Your task to perform on an android device: remove spam from my inbox in the gmail app Image 0: 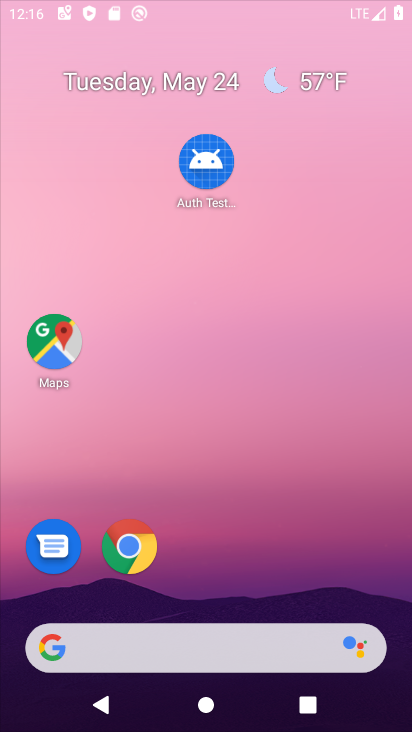
Step 0: click (373, 186)
Your task to perform on an android device: remove spam from my inbox in the gmail app Image 1: 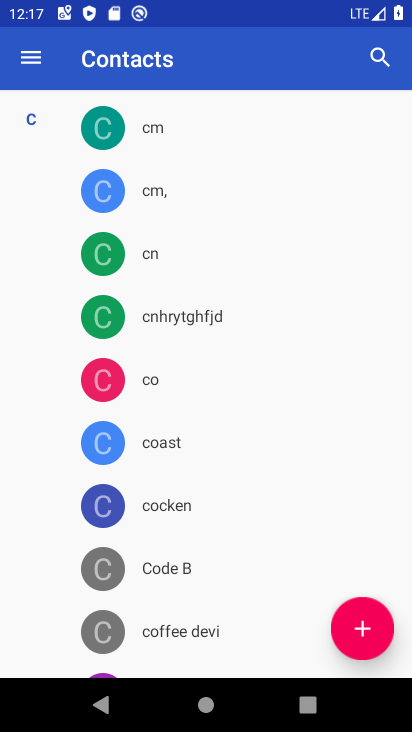
Step 1: press home button
Your task to perform on an android device: remove spam from my inbox in the gmail app Image 2: 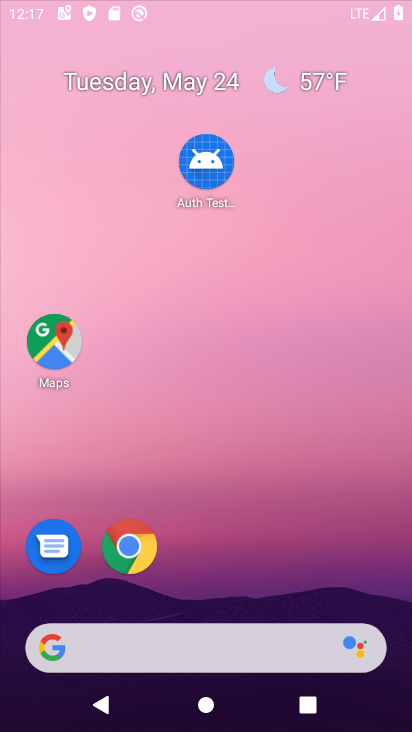
Step 2: drag from (237, 675) to (373, 203)
Your task to perform on an android device: remove spam from my inbox in the gmail app Image 3: 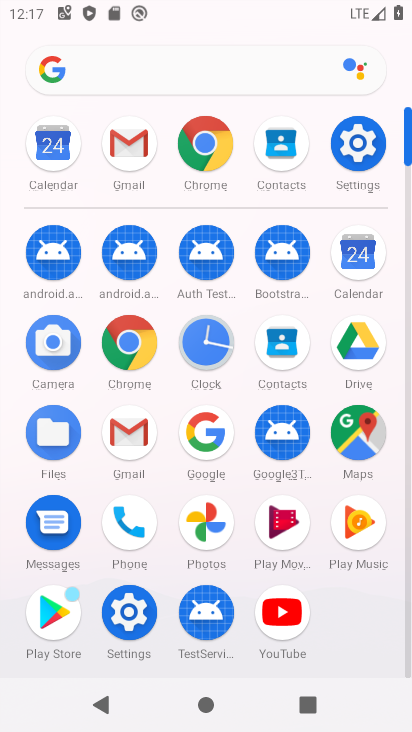
Step 3: click (117, 427)
Your task to perform on an android device: remove spam from my inbox in the gmail app Image 4: 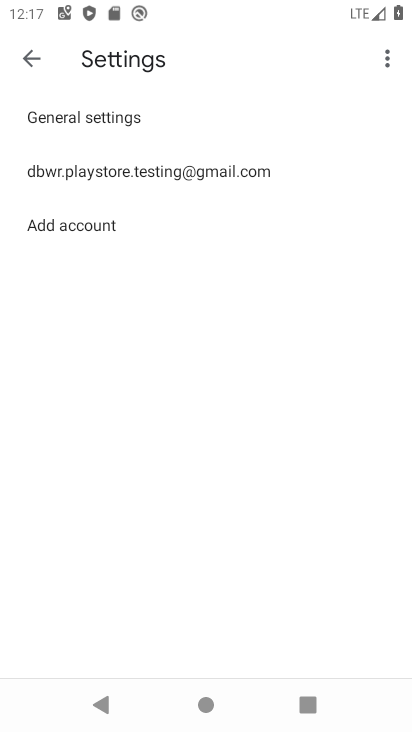
Step 4: click (91, 158)
Your task to perform on an android device: remove spam from my inbox in the gmail app Image 5: 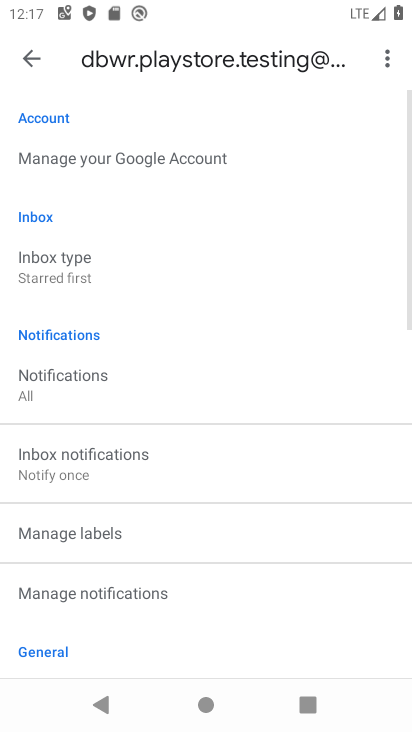
Step 5: drag from (188, 441) to (239, 247)
Your task to perform on an android device: remove spam from my inbox in the gmail app Image 6: 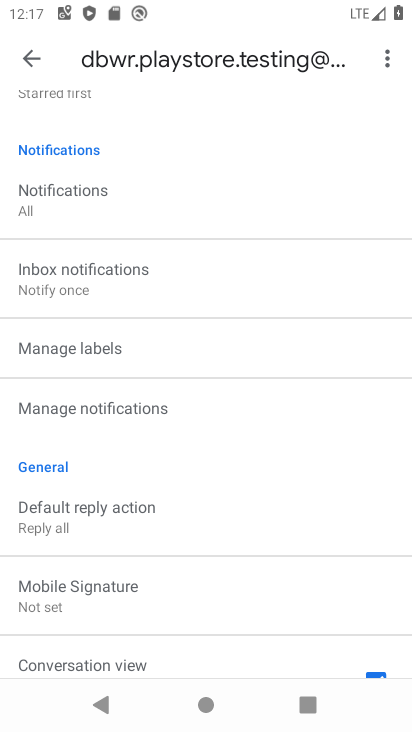
Step 6: drag from (171, 558) to (208, 275)
Your task to perform on an android device: remove spam from my inbox in the gmail app Image 7: 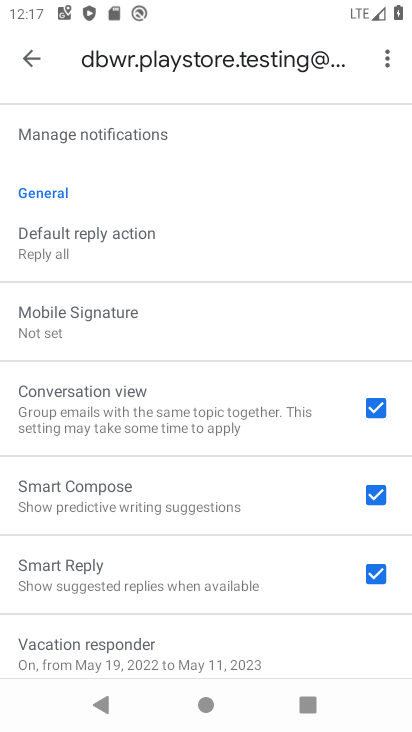
Step 7: drag from (196, 206) to (240, 649)
Your task to perform on an android device: remove spam from my inbox in the gmail app Image 8: 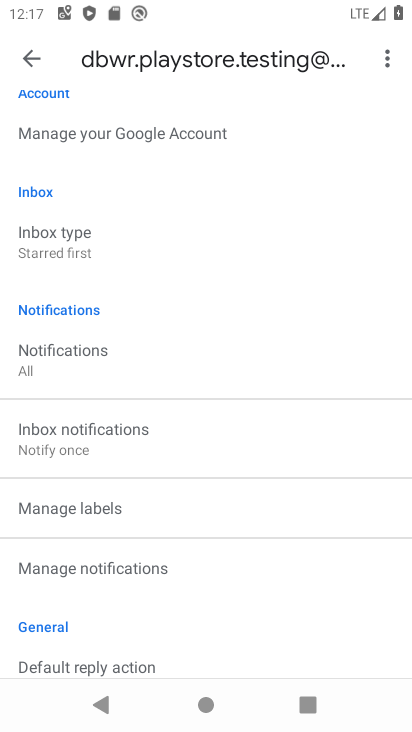
Step 8: drag from (213, 275) to (263, 600)
Your task to perform on an android device: remove spam from my inbox in the gmail app Image 9: 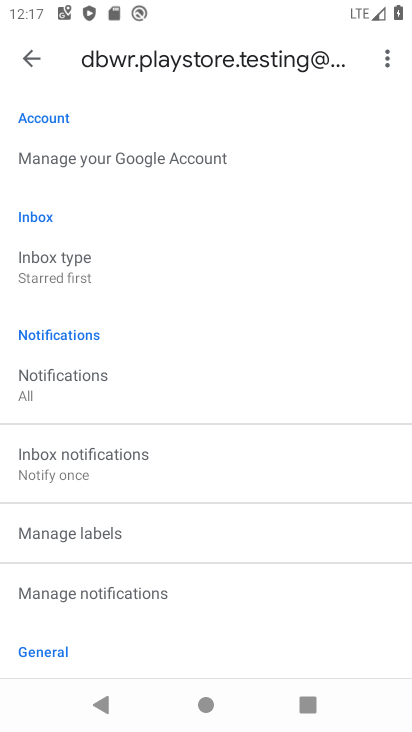
Step 9: drag from (218, 602) to (261, 235)
Your task to perform on an android device: remove spam from my inbox in the gmail app Image 10: 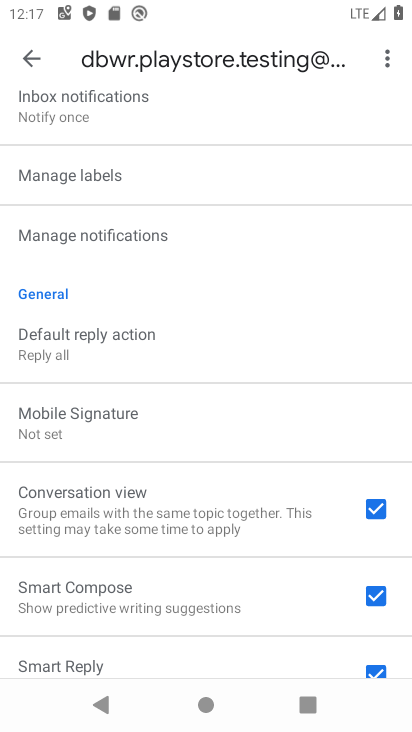
Step 10: drag from (233, 572) to (258, 350)
Your task to perform on an android device: remove spam from my inbox in the gmail app Image 11: 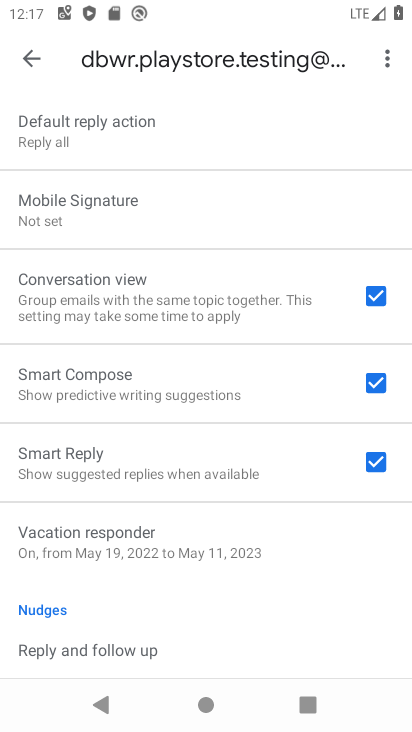
Step 11: click (37, 62)
Your task to perform on an android device: remove spam from my inbox in the gmail app Image 12: 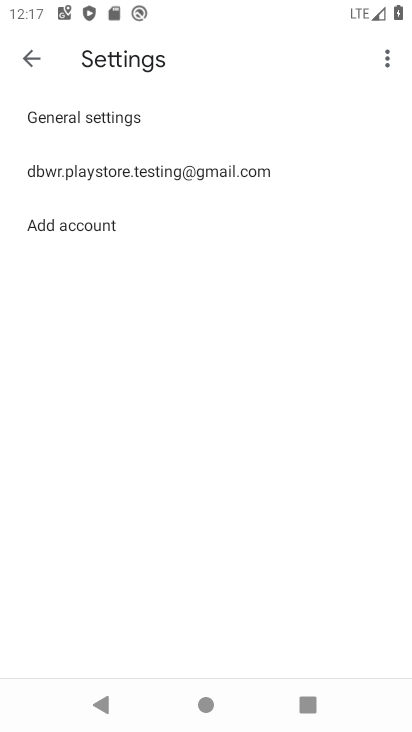
Step 12: click (38, 62)
Your task to perform on an android device: remove spam from my inbox in the gmail app Image 13: 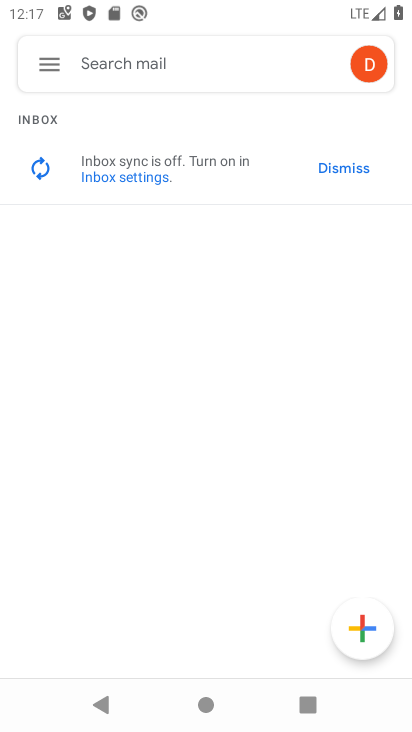
Step 13: click (38, 62)
Your task to perform on an android device: remove spam from my inbox in the gmail app Image 14: 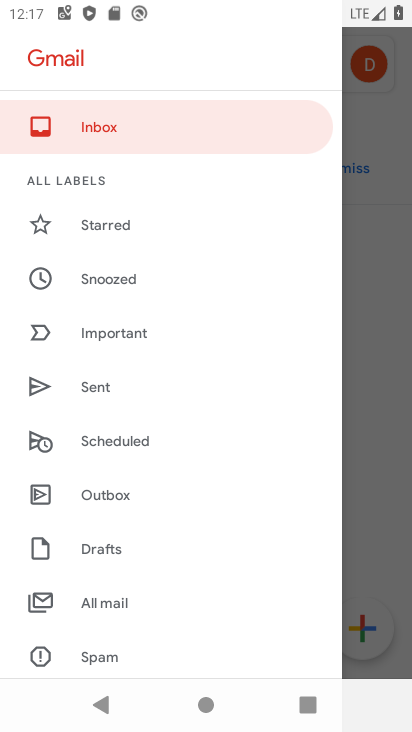
Step 14: drag from (125, 563) to (187, 329)
Your task to perform on an android device: remove spam from my inbox in the gmail app Image 15: 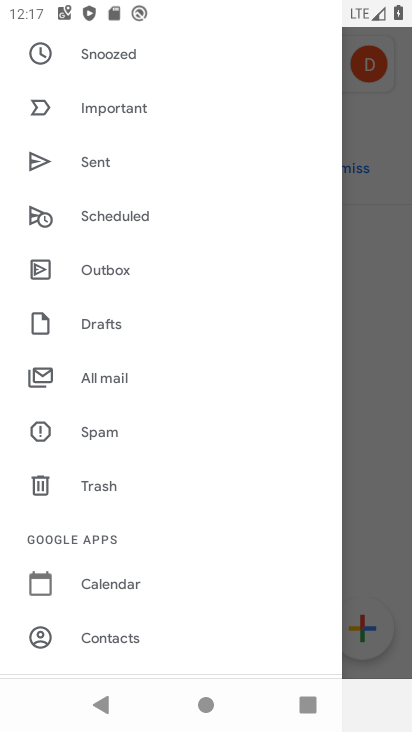
Step 15: click (115, 439)
Your task to perform on an android device: remove spam from my inbox in the gmail app Image 16: 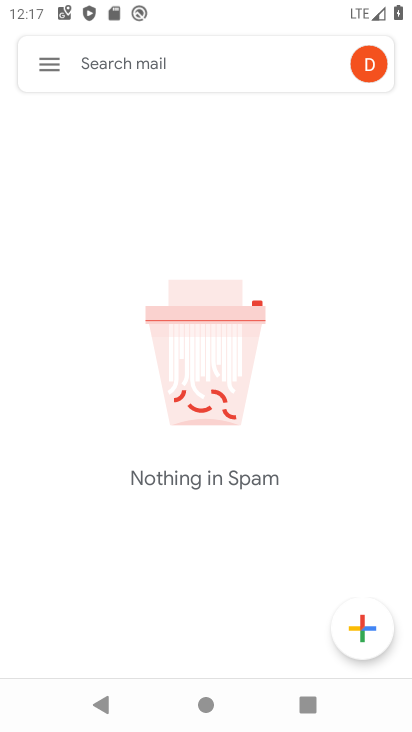
Step 16: task complete